Your task to perform on an android device: What's the weather going to be tomorrow? Image 0: 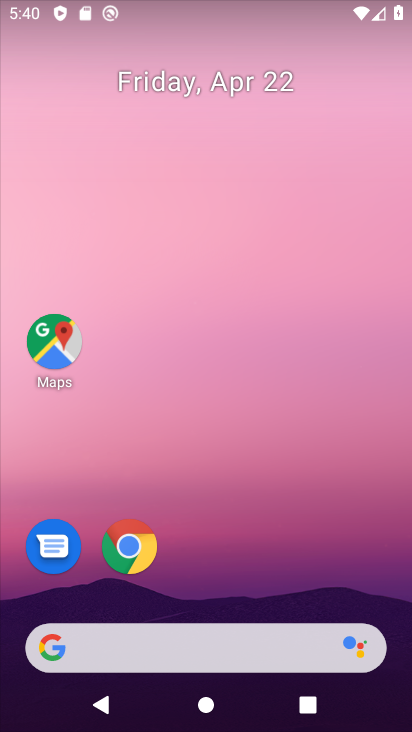
Step 0: click (126, 546)
Your task to perform on an android device: What's the weather going to be tomorrow? Image 1: 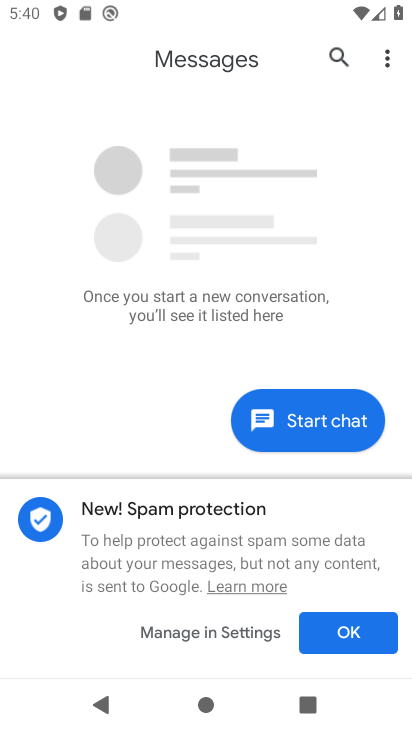
Step 1: press home button
Your task to perform on an android device: What's the weather going to be tomorrow? Image 2: 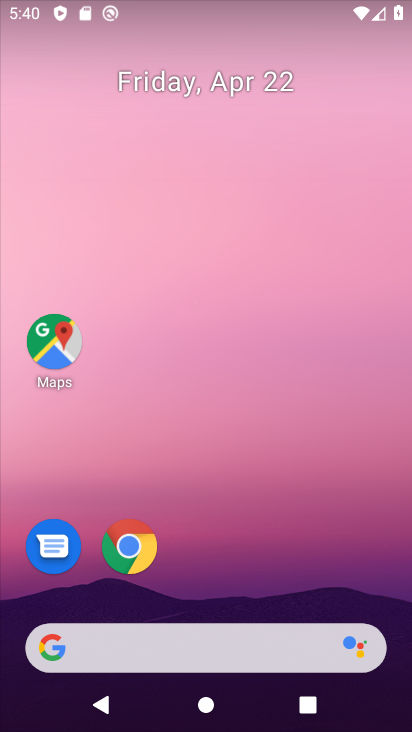
Step 2: drag from (232, 585) to (265, 100)
Your task to perform on an android device: What's the weather going to be tomorrow? Image 3: 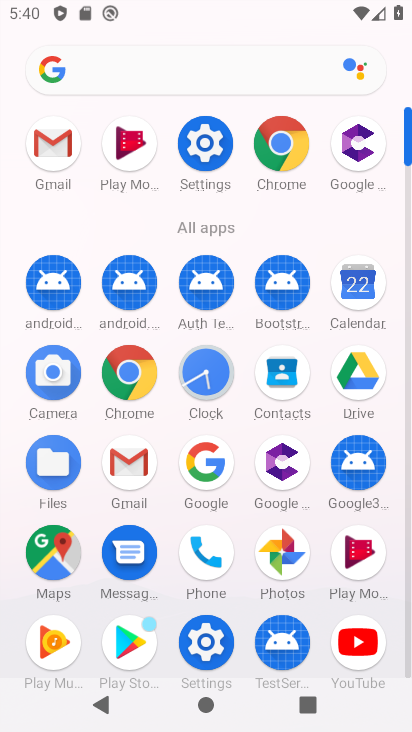
Step 3: click (199, 463)
Your task to perform on an android device: What's the weather going to be tomorrow? Image 4: 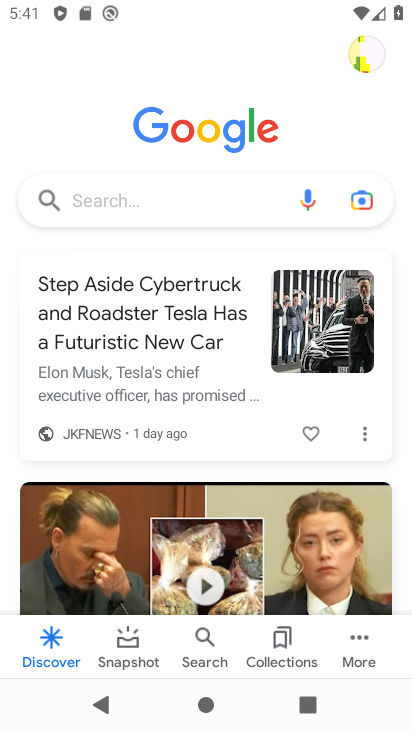
Step 4: click (174, 199)
Your task to perform on an android device: What's the weather going to be tomorrow? Image 5: 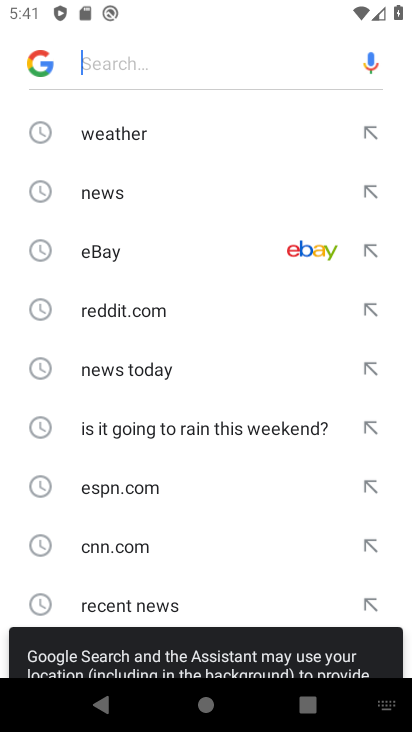
Step 5: click (98, 134)
Your task to perform on an android device: What's the weather going to be tomorrow? Image 6: 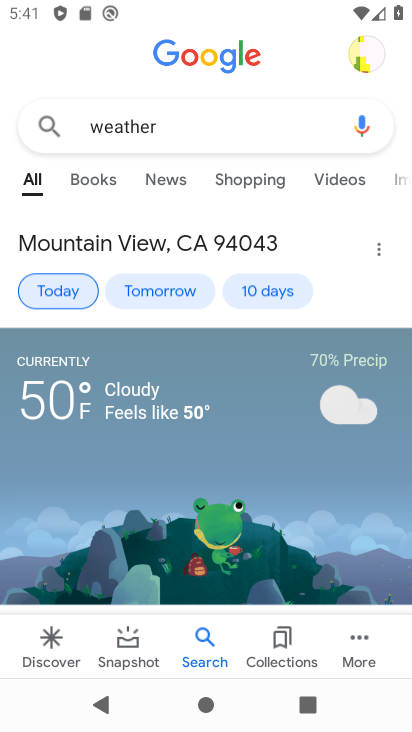
Step 6: task complete